Your task to perform on an android device: Open calendar and show me the third week of next month Image 0: 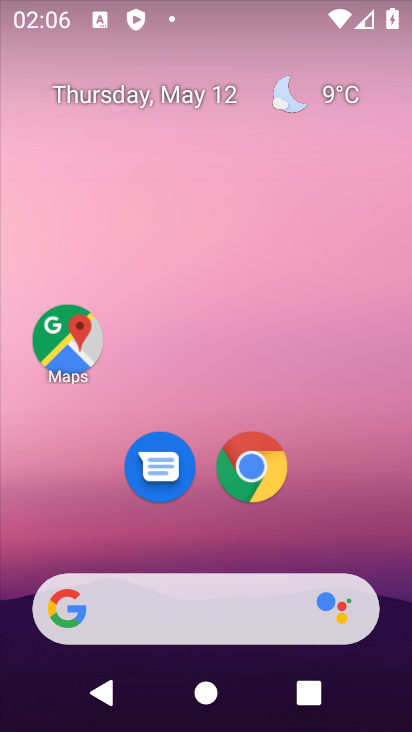
Step 0: drag from (315, 398) to (303, 116)
Your task to perform on an android device: Open calendar and show me the third week of next month Image 1: 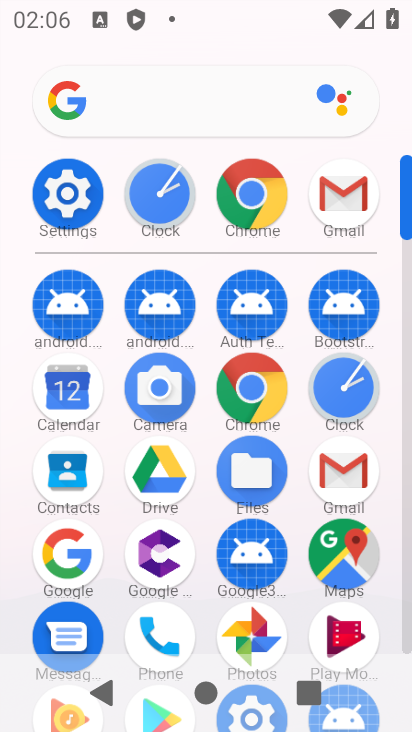
Step 1: click (81, 383)
Your task to perform on an android device: Open calendar and show me the third week of next month Image 2: 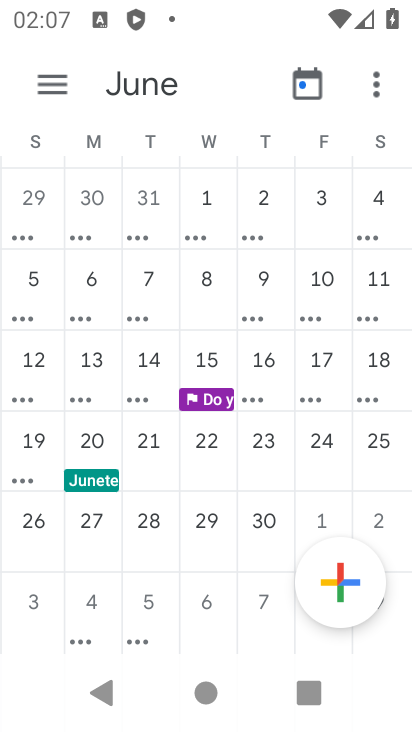
Step 2: task complete